Your task to perform on an android device: What's the weather? Image 0: 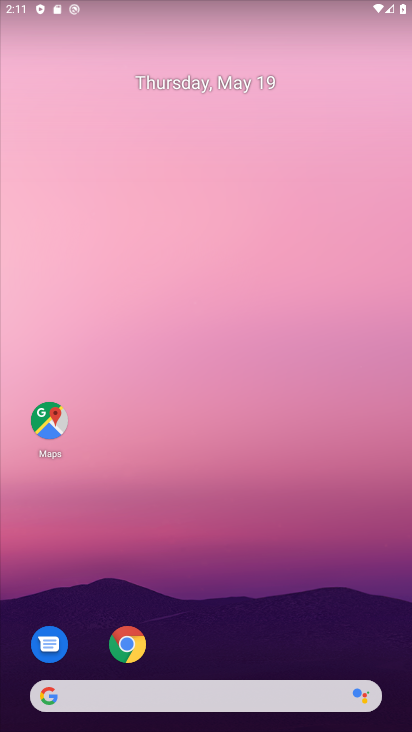
Step 0: drag from (238, 638) to (240, 283)
Your task to perform on an android device: What's the weather? Image 1: 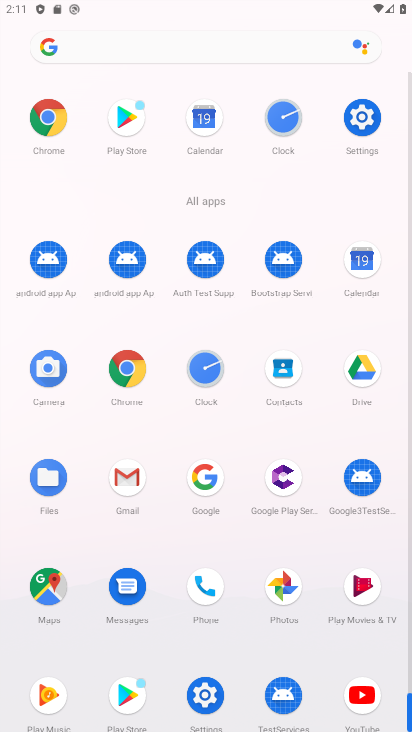
Step 1: click (53, 120)
Your task to perform on an android device: What's the weather? Image 2: 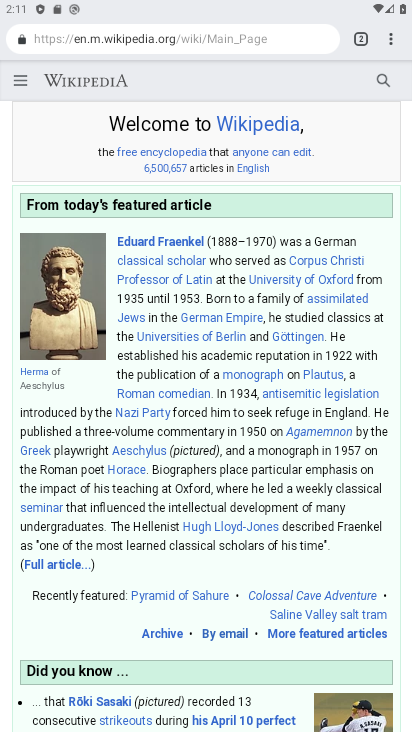
Step 2: click (387, 46)
Your task to perform on an android device: What's the weather? Image 3: 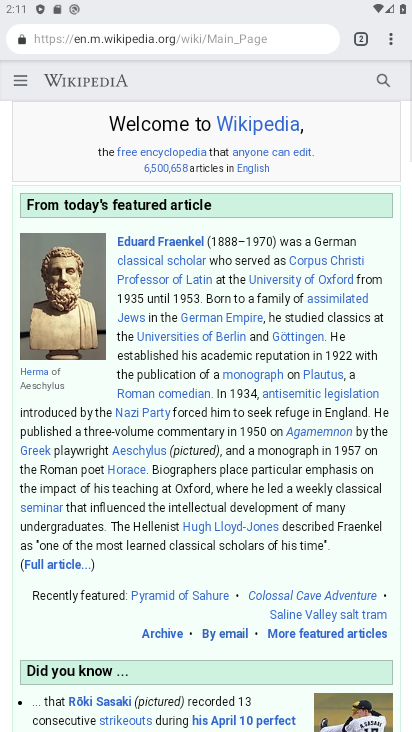
Step 3: click (398, 29)
Your task to perform on an android device: What's the weather? Image 4: 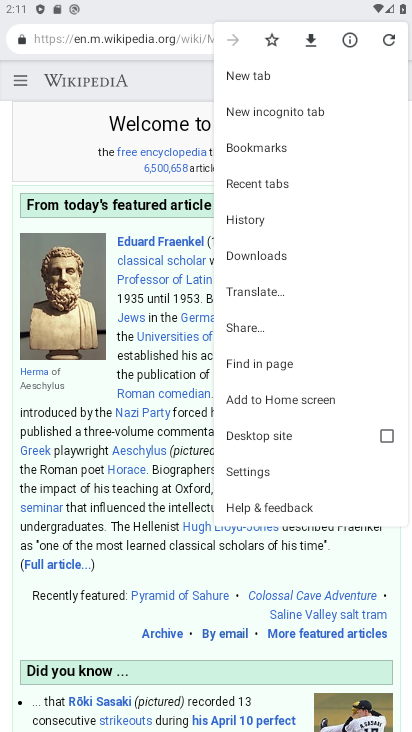
Step 4: click (285, 71)
Your task to perform on an android device: What's the weather? Image 5: 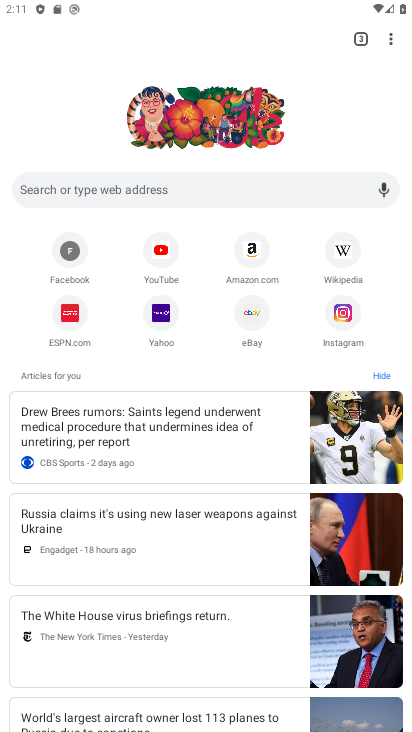
Step 5: click (147, 181)
Your task to perform on an android device: What's the weather? Image 6: 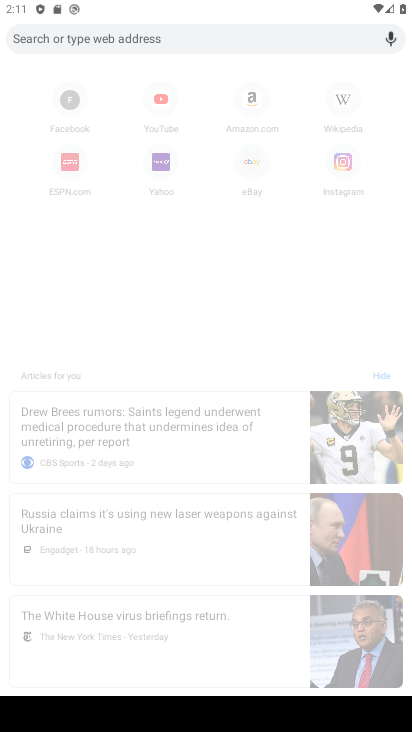
Step 6: click (192, 38)
Your task to perform on an android device: What's the weather? Image 7: 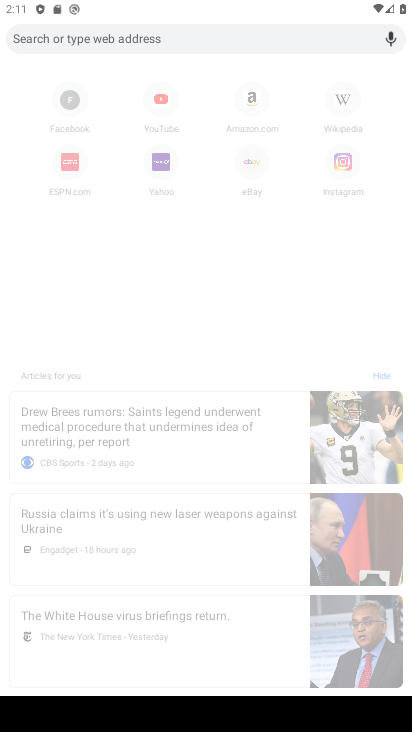
Step 7: type "What's the weather?"
Your task to perform on an android device: What's the weather? Image 8: 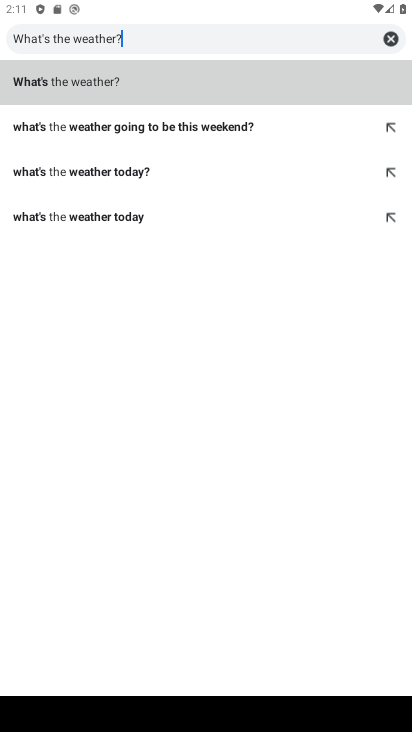
Step 8: click (69, 83)
Your task to perform on an android device: What's the weather? Image 9: 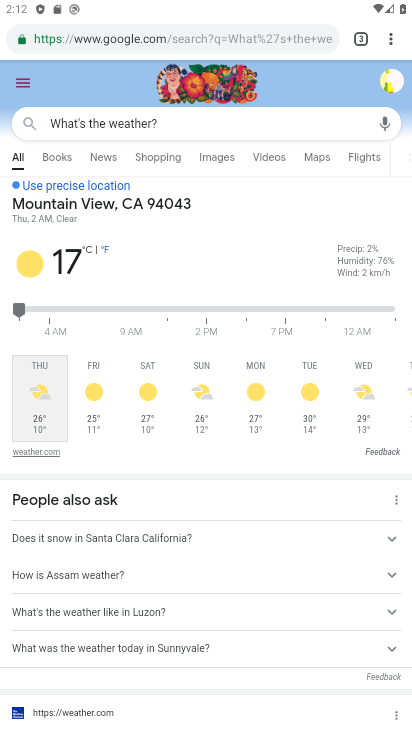
Step 9: task complete